Your task to perform on an android device: Go to Maps Image 0: 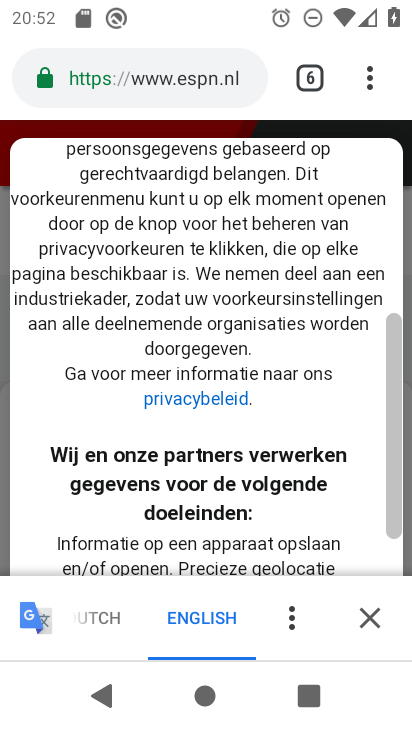
Step 0: press home button
Your task to perform on an android device: Go to Maps Image 1: 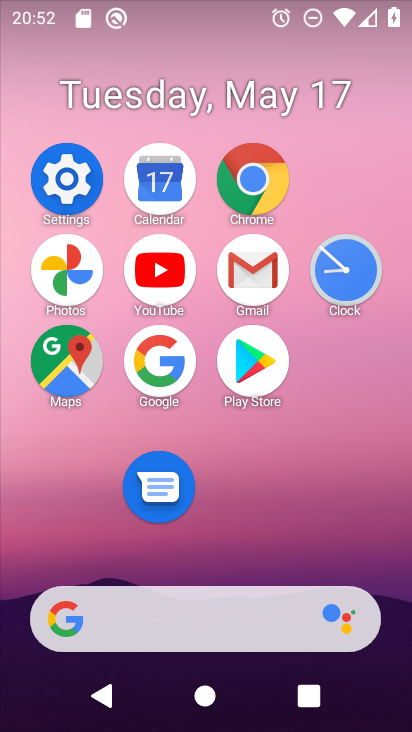
Step 1: click (77, 356)
Your task to perform on an android device: Go to Maps Image 2: 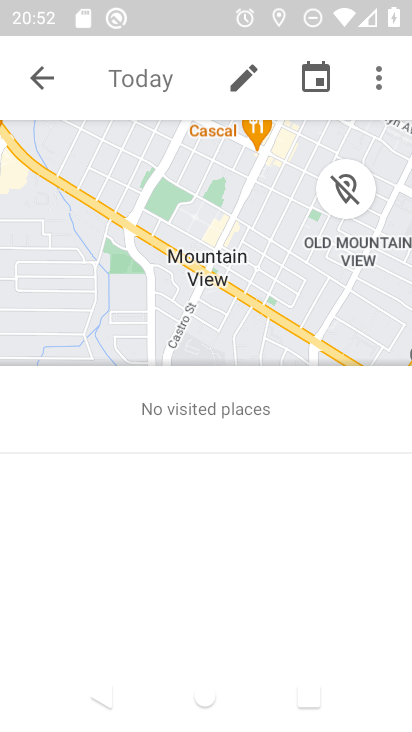
Step 2: task complete